Your task to perform on an android device: Open Chrome and go to the settings page Image 0: 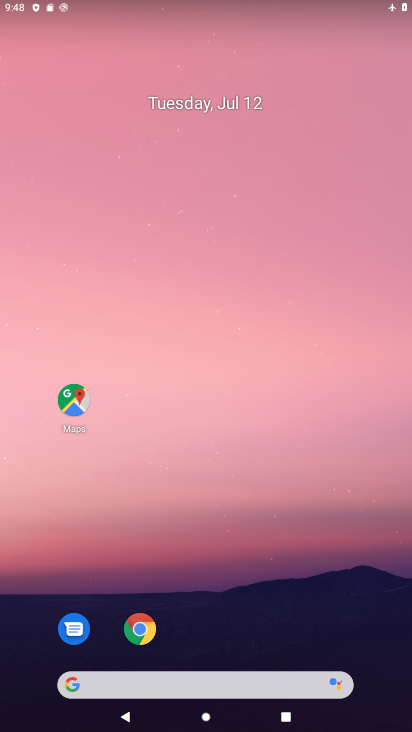
Step 0: drag from (267, 682) to (265, 138)
Your task to perform on an android device: Open Chrome and go to the settings page Image 1: 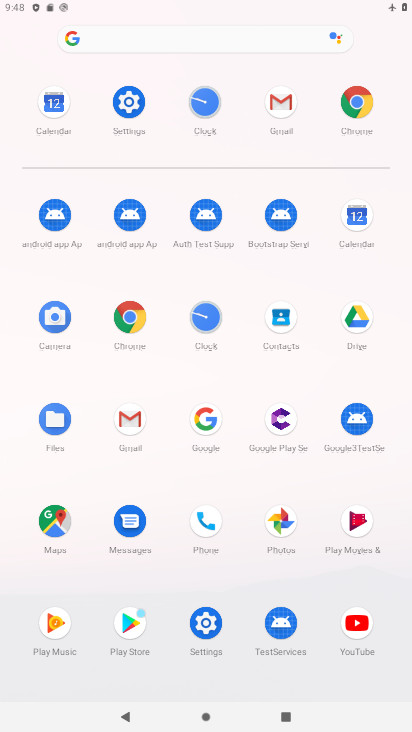
Step 1: click (136, 322)
Your task to perform on an android device: Open Chrome and go to the settings page Image 2: 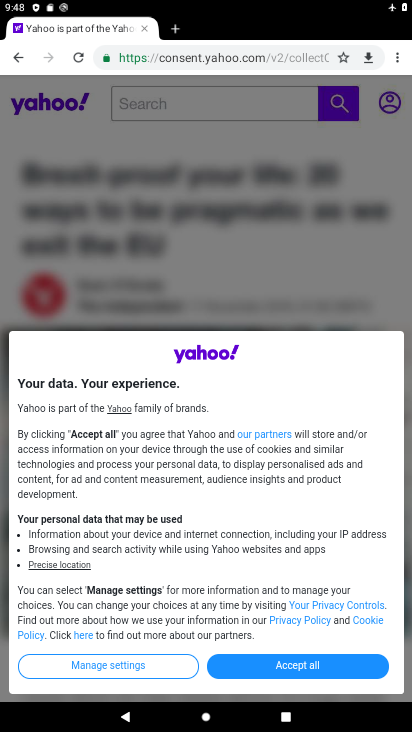
Step 2: task complete